Your task to perform on an android device: set an alarm Image 0: 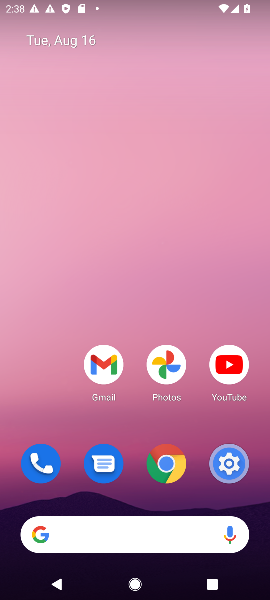
Step 0: drag from (157, 504) to (257, 269)
Your task to perform on an android device: set an alarm Image 1: 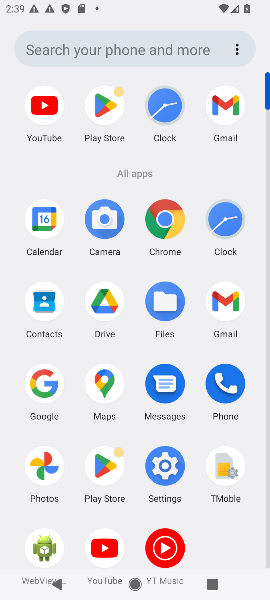
Step 1: click (227, 228)
Your task to perform on an android device: set an alarm Image 2: 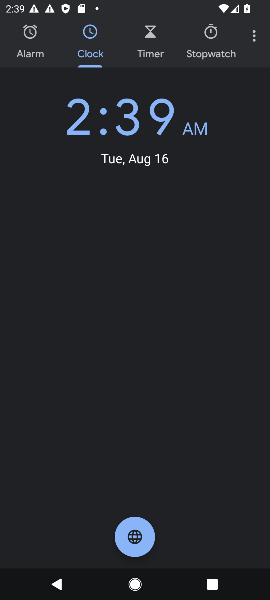
Step 2: click (25, 36)
Your task to perform on an android device: set an alarm Image 3: 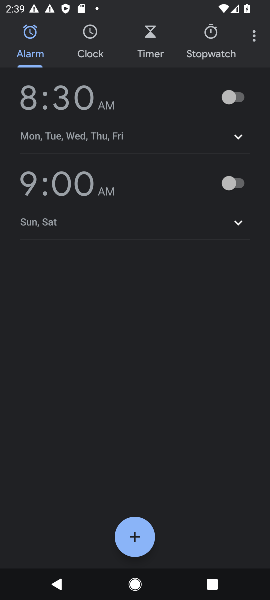
Step 3: click (136, 521)
Your task to perform on an android device: set an alarm Image 4: 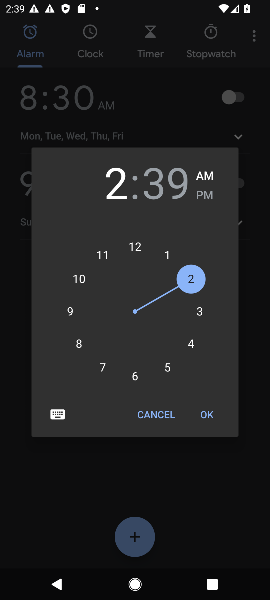
Step 4: click (206, 412)
Your task to perform on an android device: set an alarm Image 5: 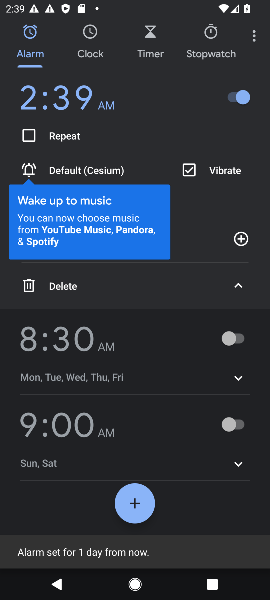
Step 5: task complete